Your task to perform on an android device: open wifi settings Image 0: 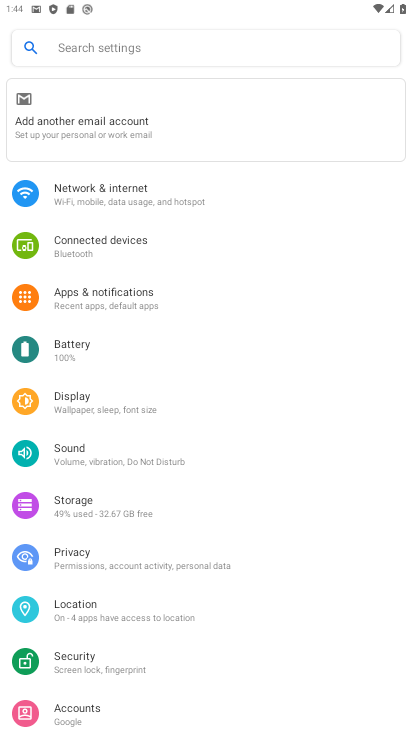
Step 0: click (230, 189)
Your task to perform on an android device: open wifi settings Image 1: 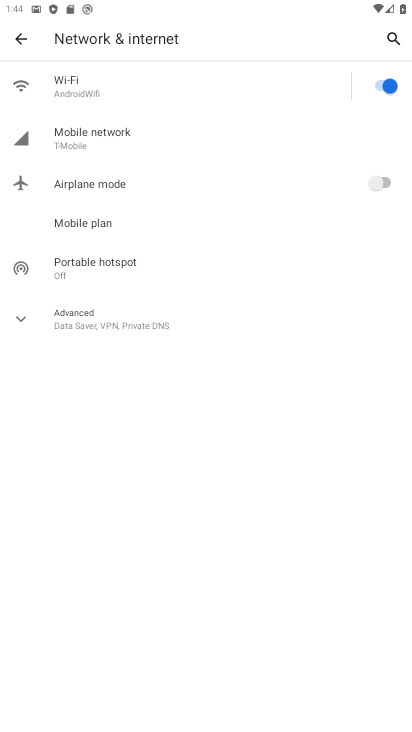
Step 1: click (196, 86)
Your task to perform on an android device: open wifi settings Image 2: 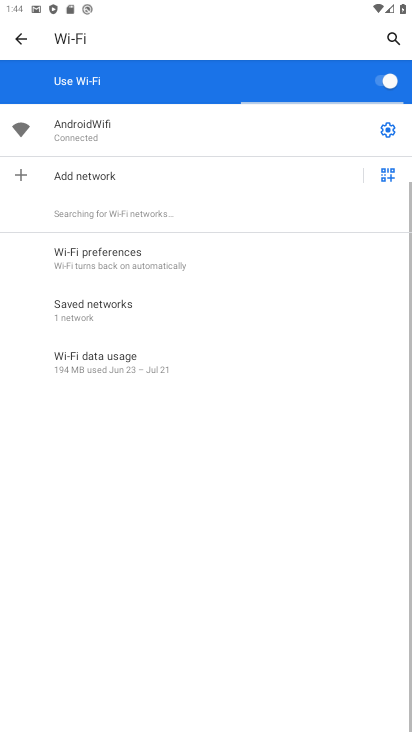
Step 2: task complete